Your task to perform on an android device: Search for sushi restaurants on Maps Image 0: 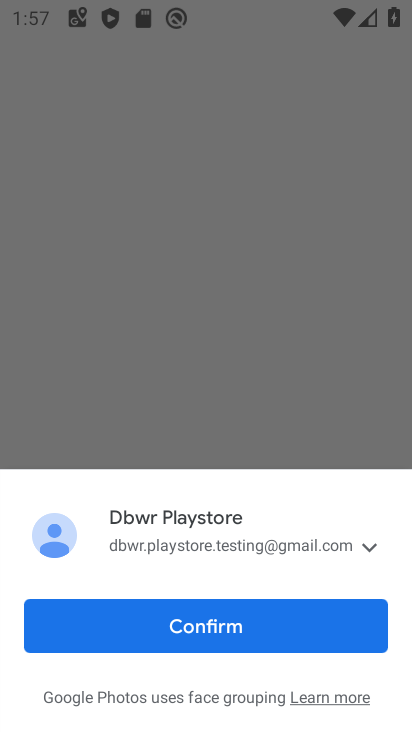
Step 0: press home button
Your task to perform on an android device: Search for sushi restaurants on Maps Image 1: 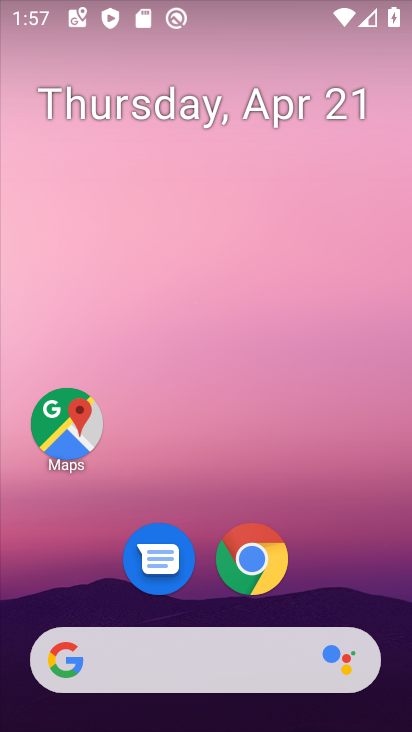
Step 1: click (73, 429)
Your task to perform on an android device: Search for sushi restaurants on Maps Image 2: 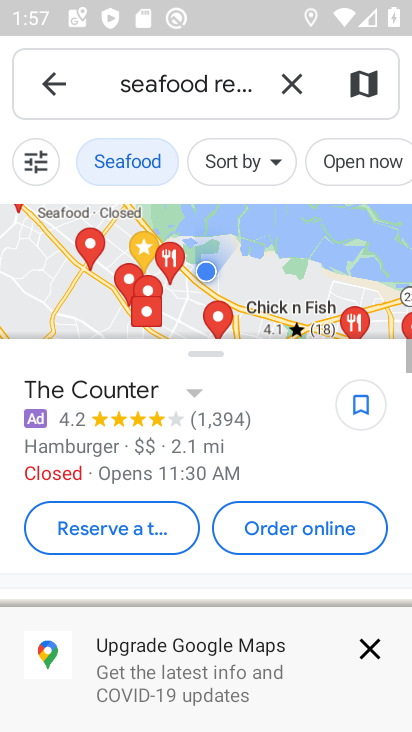
Step 2: click (288, 83)
Your task to perform on an android device: Search for sushi restaurants on Maps Image 3: 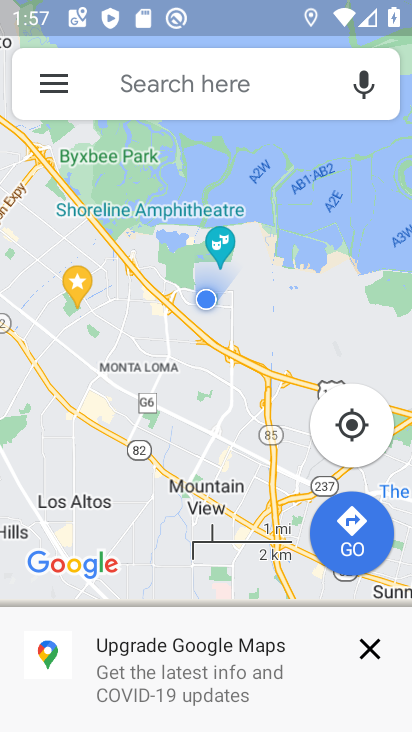
Step 3: click (204, 90)
Your task to perform on an android device: Search for sushi restaurants on Maps Image 4: 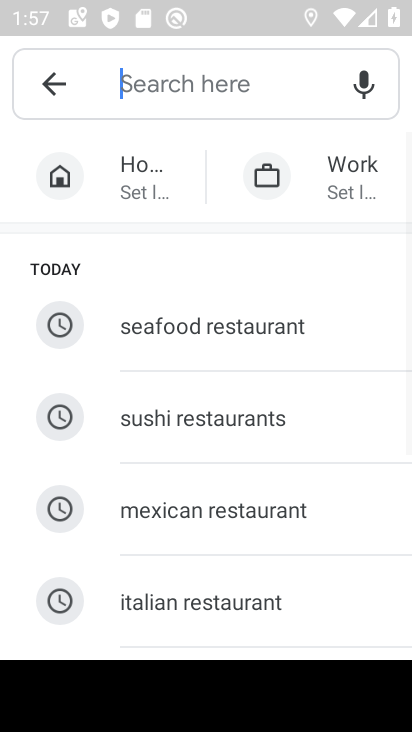
Step 4: click (170, 418)
Your task to perform on an android device: Search for sushi restaurants on Maps Image 5: 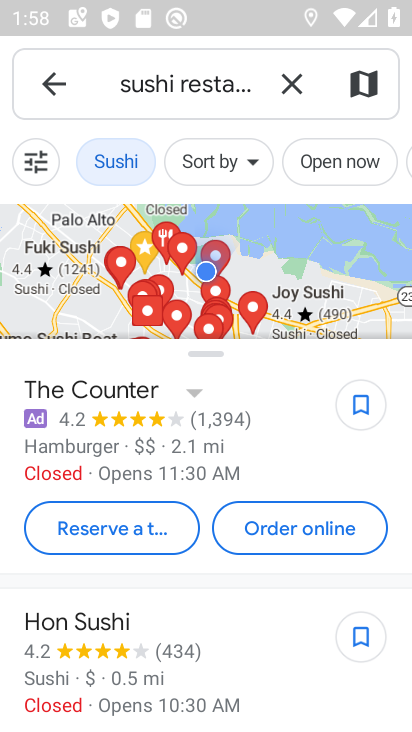
Step 5: task complete